Your task to perform on an android device: Open Maps and search for coffee Image 0: 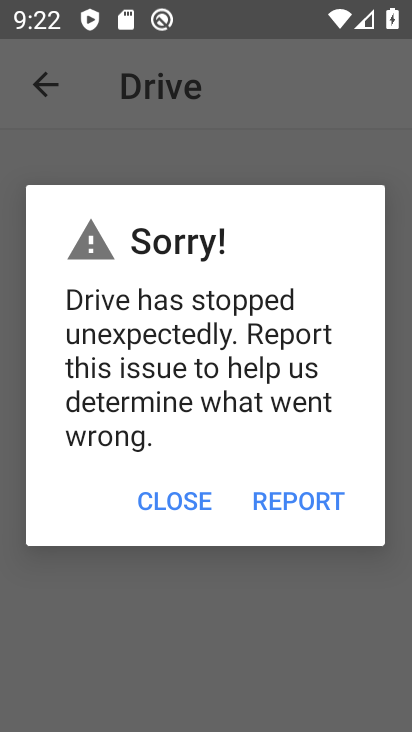
Step 0: press home button
Your task to perform on an android device: Open Maps and search for coffee Image 1: 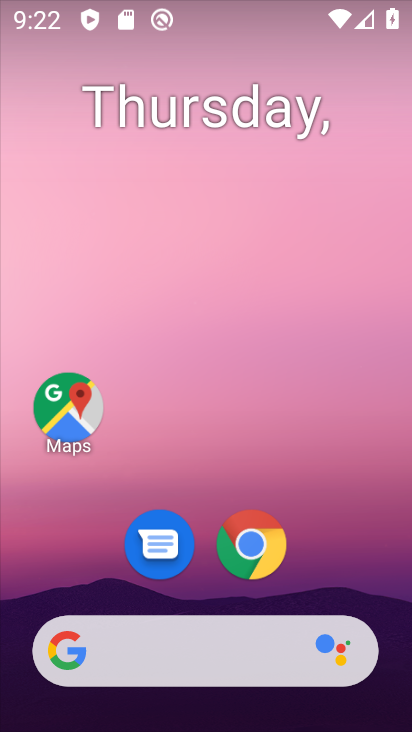
Step 1: click (72, 421)
Your task to perform on an android device: Open Maps and search for coffee Image 2: 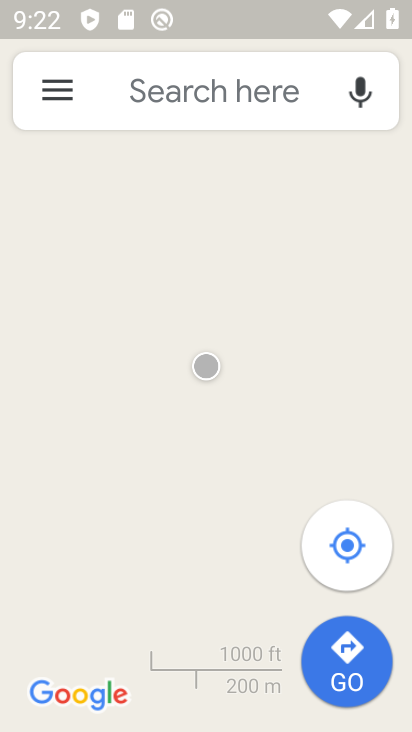
Step 2: click (202, 100)
Your task to perform on an android device: Open Maps and search for coffee Image 3: 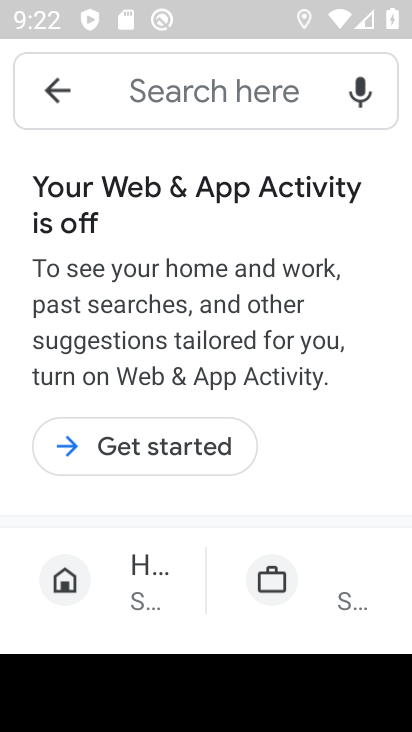
Step 3: click (170, 104)
Your task to perform on an android device: Open Maps and search for coffee Image 4: 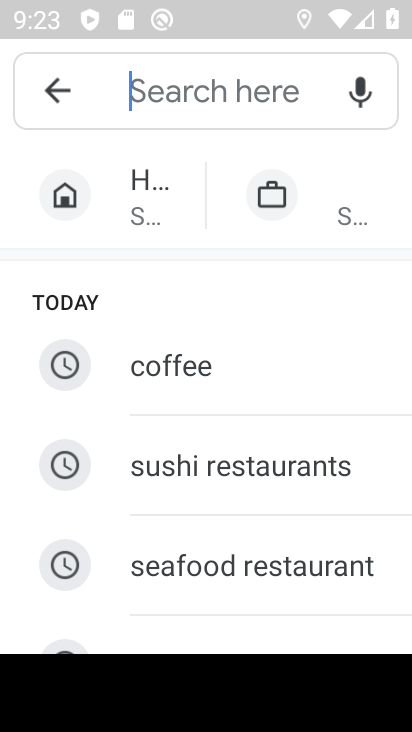
Step 4: click (178, 358)
Your task to perform on an android device: Open Maps and search for coffee Image 5: 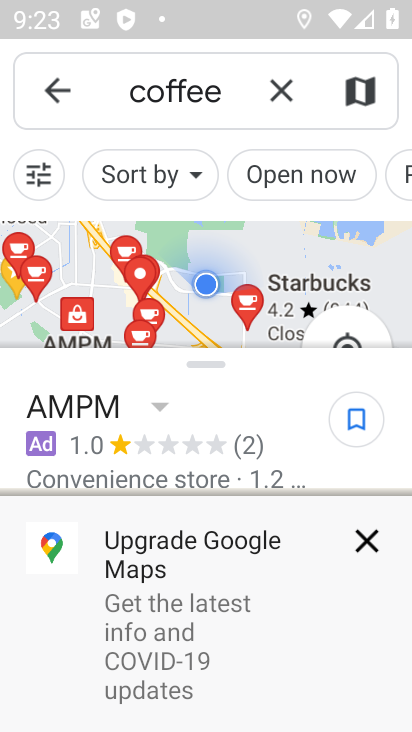
Step 5: task complete